Your task to perform on an android device: Go to calendar. Show me events next week Image 0: 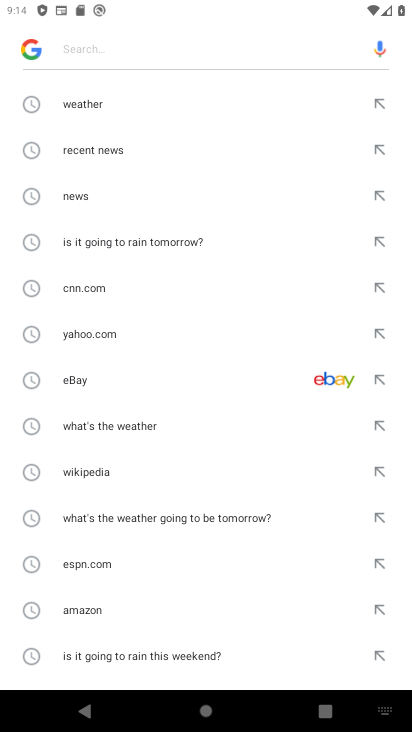
Step 0: press home button
Your task to perform on an android device: Go to calendar. Show me events next week Image 1: 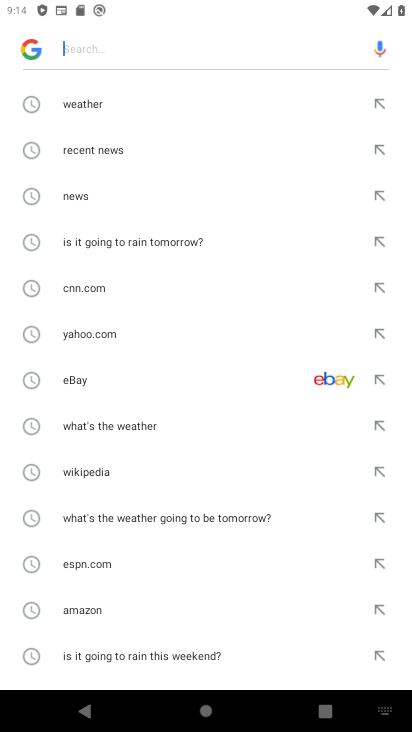
Step 1: press home button
Your task to perform on an android device: Go to calendar. Show me events next week Image 2: 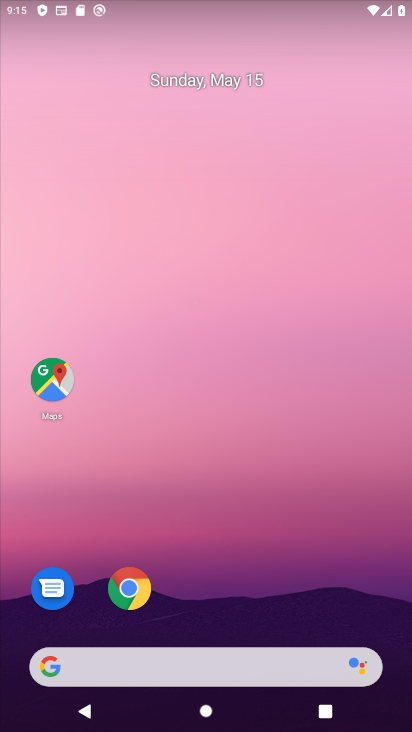
Step 2: click (262, 540)
Your task to perform on an android device: Go to calendar. Show me events next week Image 3: 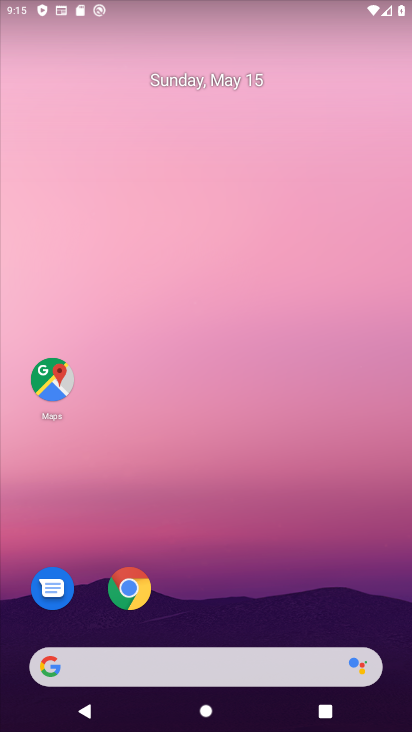
Step 3: click (228, 75)
Your task to perform on an android device: Go to calendar. Show me events next week Image 4: 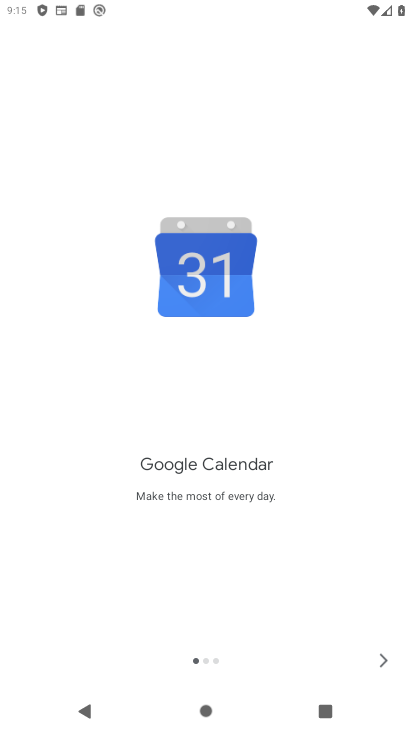
Step 4: click (382, 662)
Your task to perform on an android device: Go to calendar. Show me events next week Image 5: 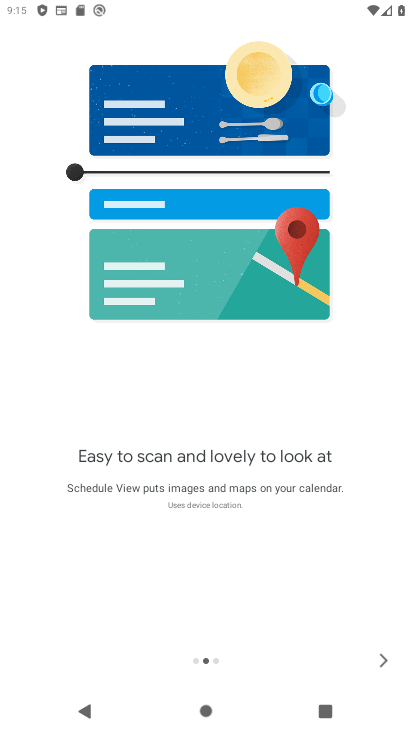
Step 5: click (381, 658)
Your task to perform on an android device: Go to calendar. Show me events next week Image 6: 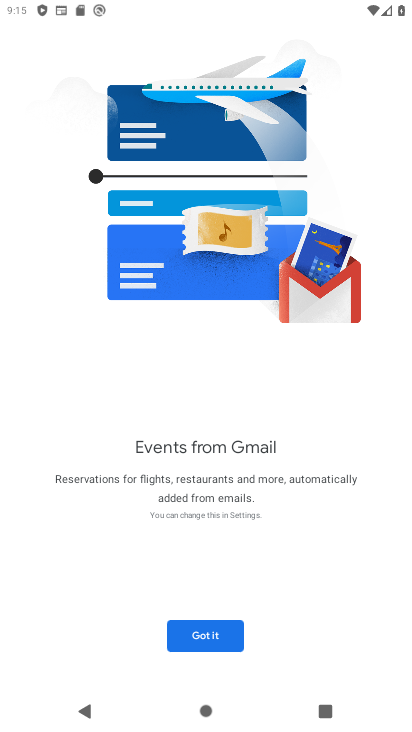
Step 6: click (203, 640)
Your task to perform on an android device: Go to calendar. Show me events next week Image 7: 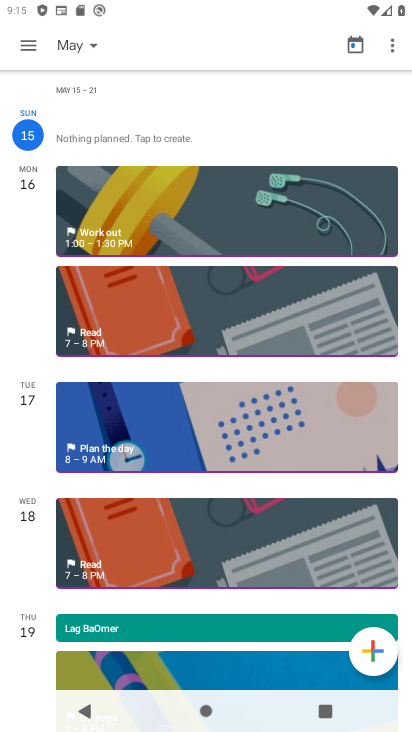
Step 7: click (26, 42)
Your task to perform on an android device: Go to calendar. Show me events next week Image 8: 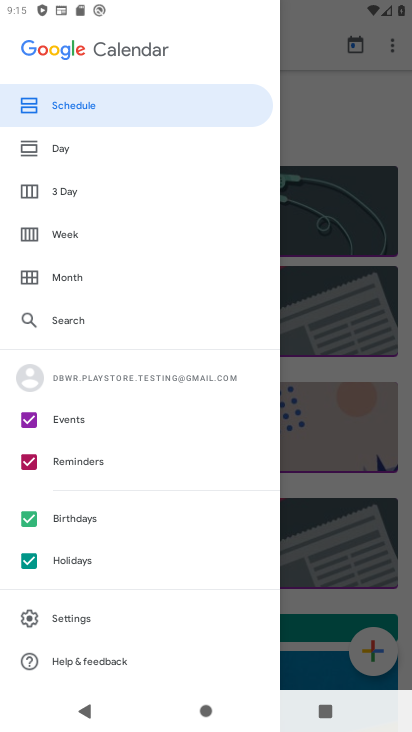
Step 8: click (37, 557)
Your task to perform on an android device: Go to calendar. Show me events next week Image 9: 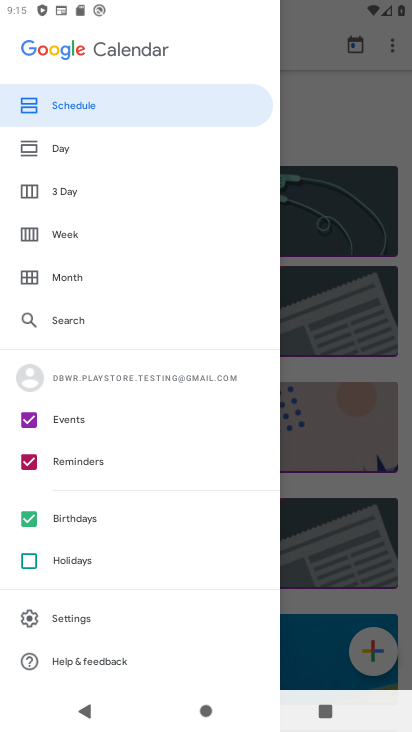
Step 9: click (29, 519)
Your task to perform on an android device: Go to calendar. Show me events next week Image 10: 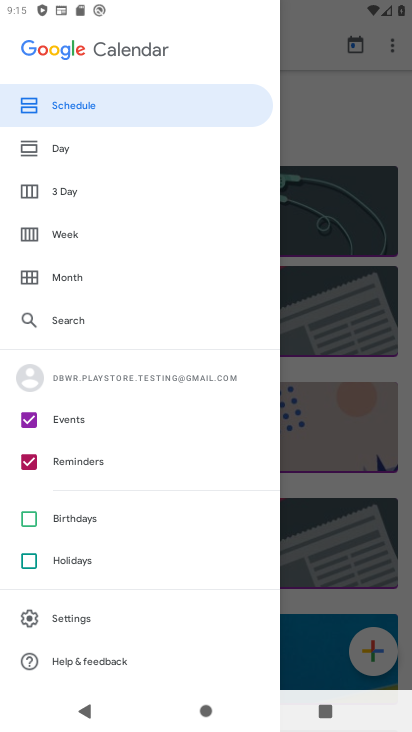
Step 10: click (27, 458)
Your task to perform on an android device: Go to calendar. Show me events next week Image 11: 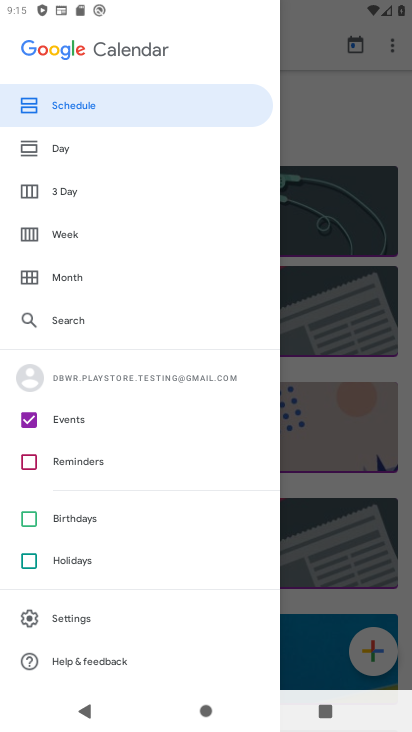
Step 11: click (72, 231)
Your task to perform on an android device: Go to calendar. Show me events next week Image 12: 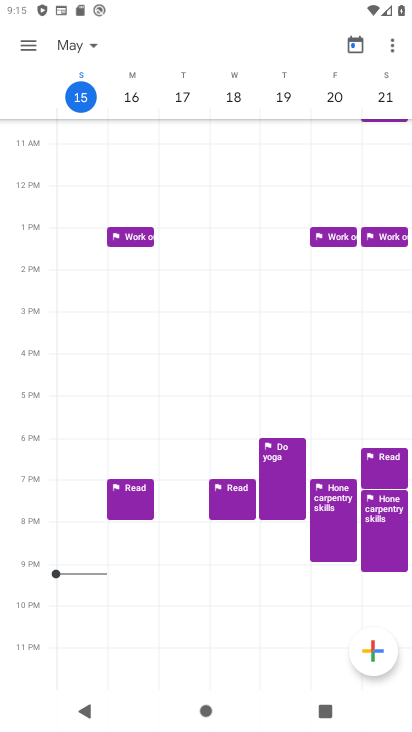
Step 12: click (92, 41)
Your task to perform on an android device: Go to calendar. Show me events next week Image 13: 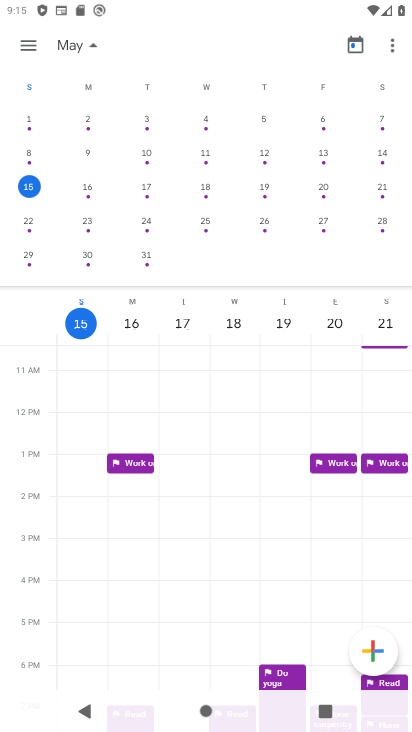
Step 13: drag from (330, 197) to (0, 186)
Your task to perform on an android device: Go to calendar. Show me events next week Image 14: 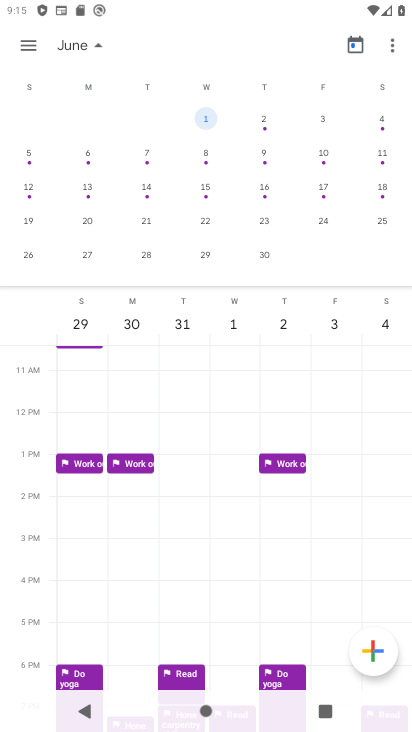
Step 14: drag from (105, 169) to (371, 151)
Your task to perform on an android device: Go to calendar. Show me events next week Image 15: 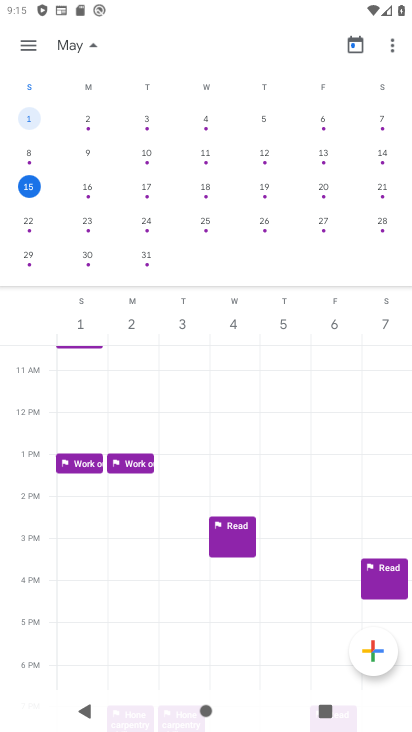
Step 15: click (90, 218)
Your task to perform on an android device: Go to calendar. Show me events next week Image 16: 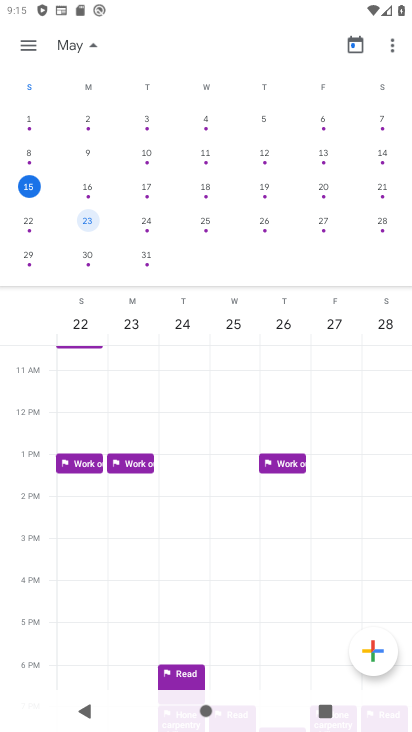
Step 16: task complete